Your task to perform on an android device: turn off location Image 0: 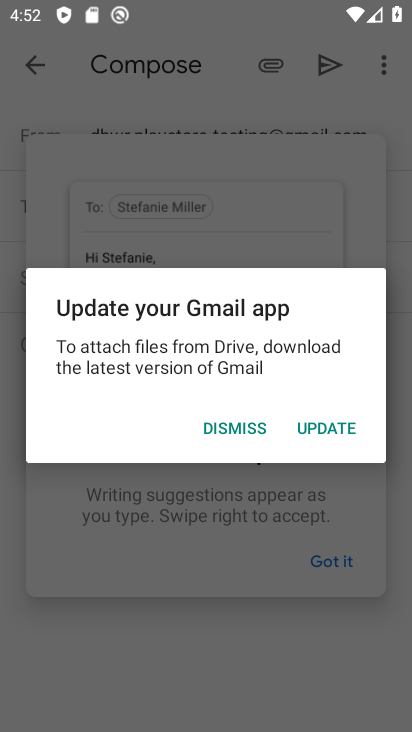
Step 0: press home button
Your task to perform on an android device: turn off location Image 1: 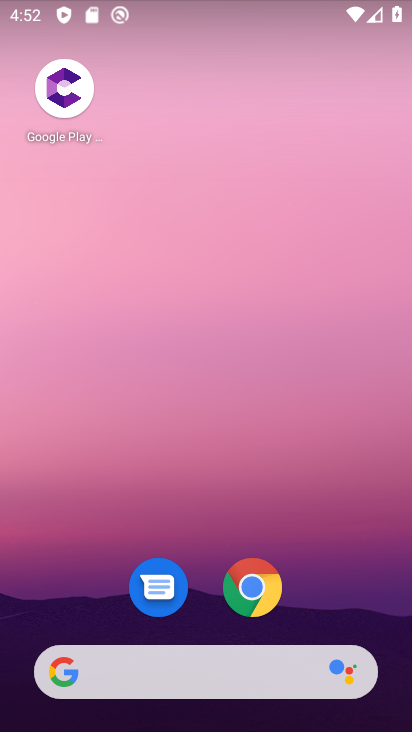
Step 1: drag from (335, 603) to (266, 141)
Your task to perform on an android device: turn off location Image 2: 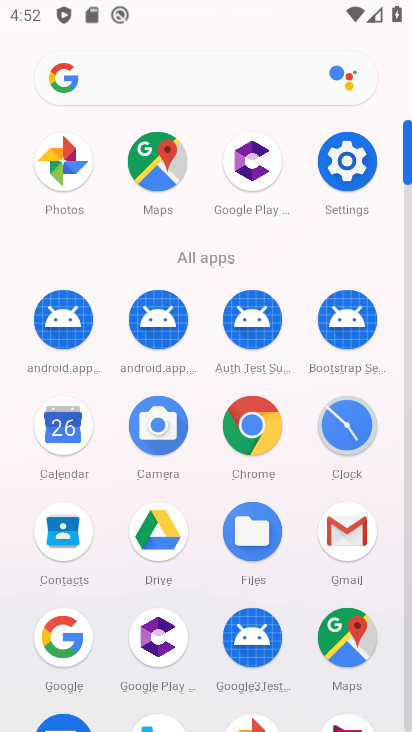
Step 2: click (348, 162)
Your task to perform on an android device: turn off location Image 3: 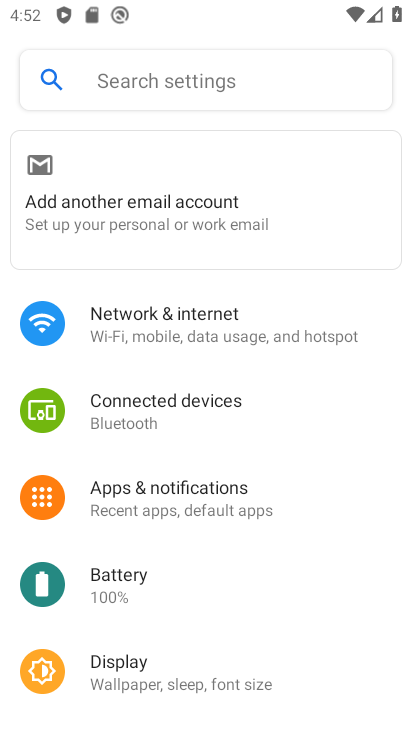
Step 3: drag from (168, 580) to (209, 493)
Your task to perform on an android device: turn off location Image 4: 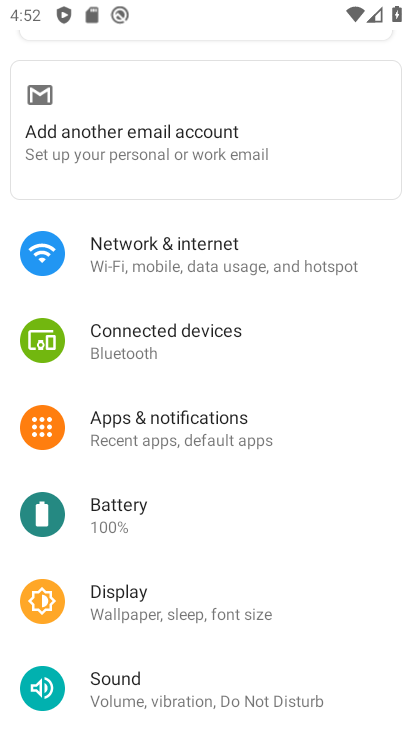
Step 4: drag from (163, 663) to (240, 571)
Your task to perform on an android device: turn off location Image 5: 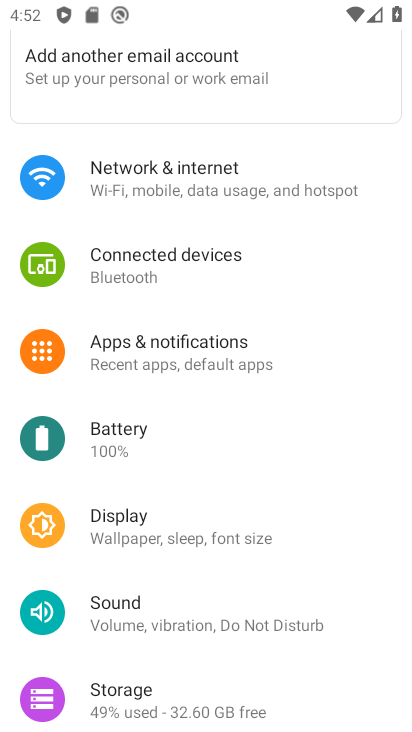
Step 5: drag from (180, 650) to (245, 569)
Your task to perform on an android device: turn off location Image 6: 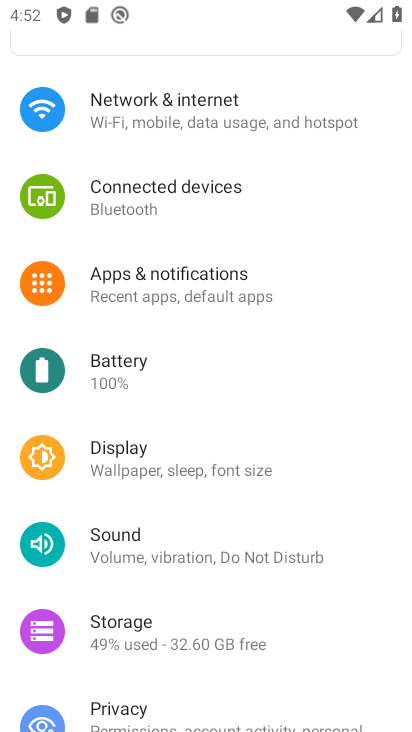
Step 6: drag from (187, 580) to (249, 435)
Your task to perform on an android device: turn off location Image 7: 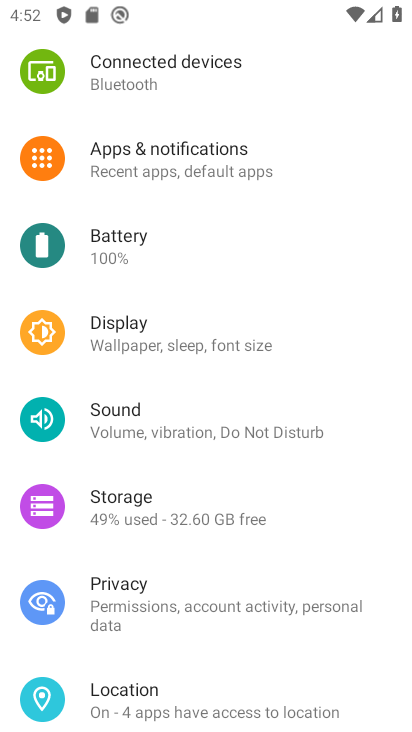
Step 7: drag from (176, 564) to (239, 400)
Your task to perform on an android device: turn off location Image 8: 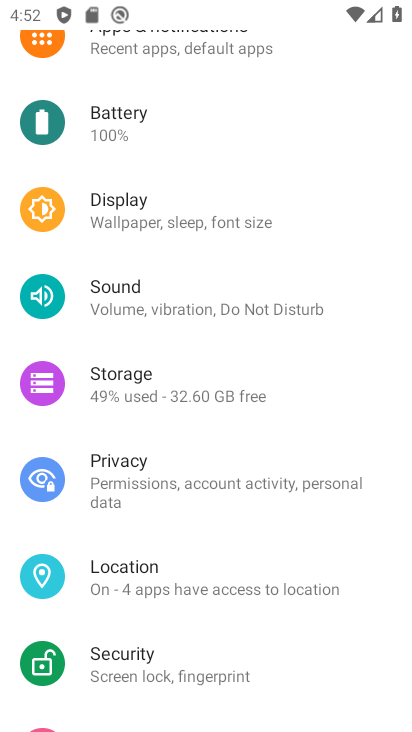
Step 8: click (162, 581)
Your task to perform on an android device: turn off location Image 9: 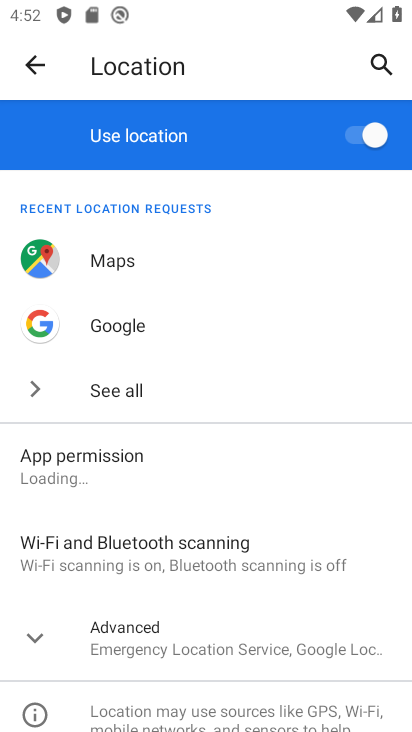
Step 9: click (361, 137)
Your task to perform on an android device: turn off location Image 10: 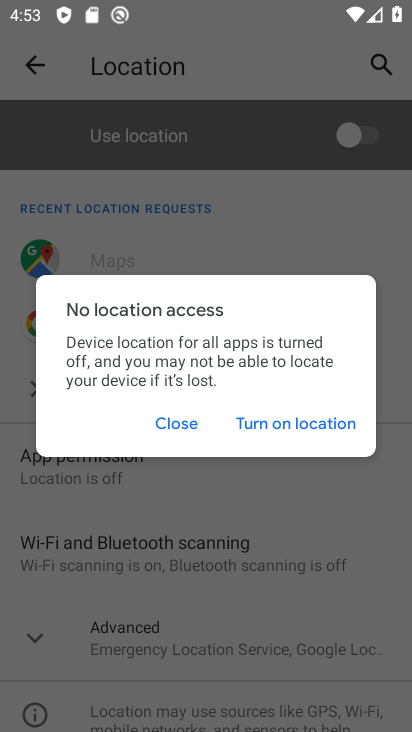
Step 10: click (168, 417)
Your task to perform on an android device: turn off location Image 11: 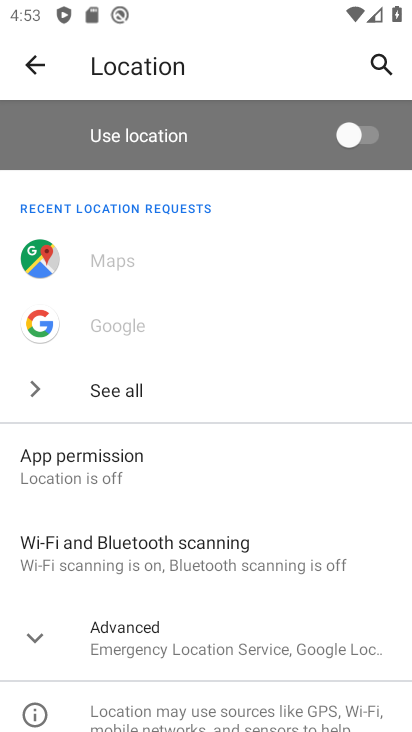
Step 11: task complete